Your task to perform on an android device: Search for "usb-b" on bestbuy.com, select the first entry, add it to the cart, then select checkout. Image 0: 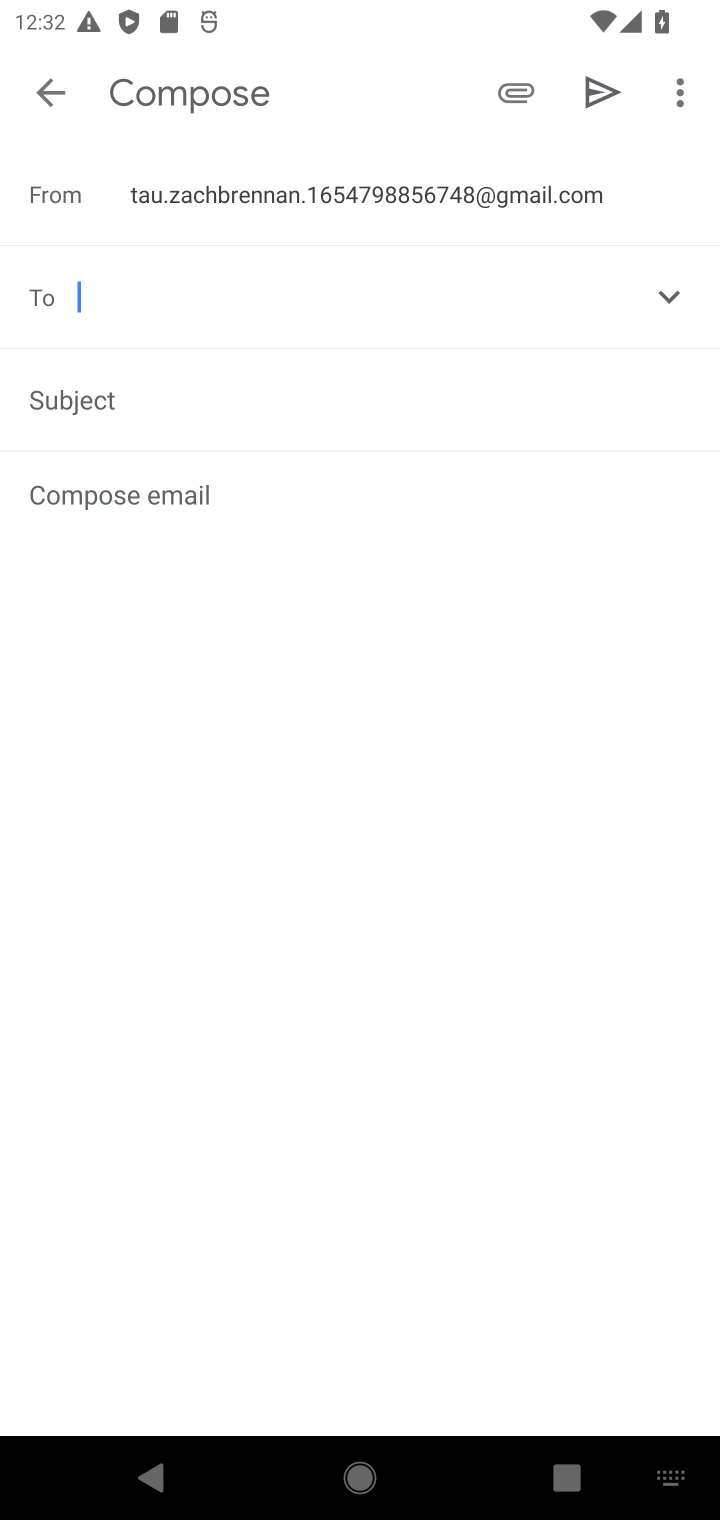
Step 0: press home button
Your task to perform on an android device: Search for "usb-b" on bestbuy.com, select the first entry, add it to the cart, then select checkout. Image 1: 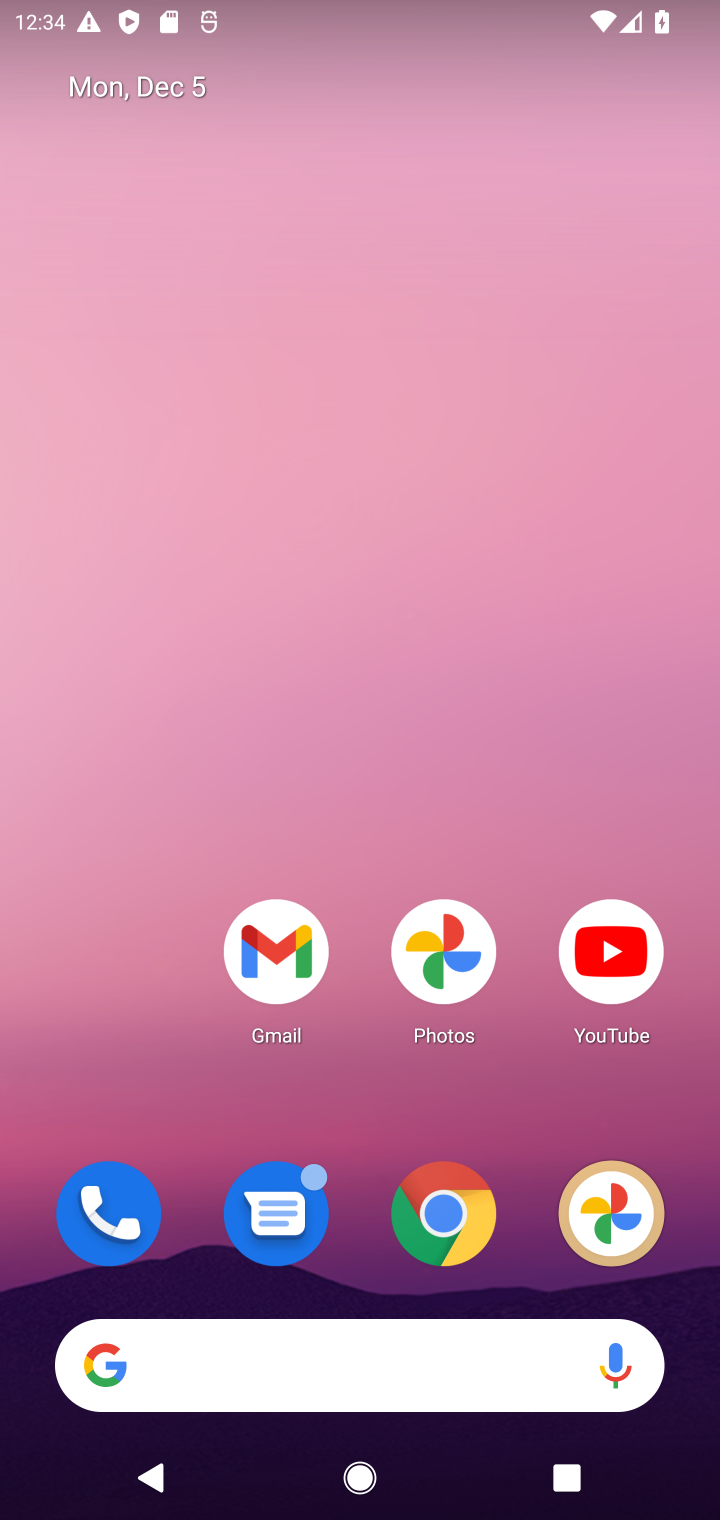
Step 1: click (447, 1225)
Your task to perform on an android device: Search for "usb-b" on bestbuy.com, select the first entry, add it to the cart, then select checkout. Image 2: 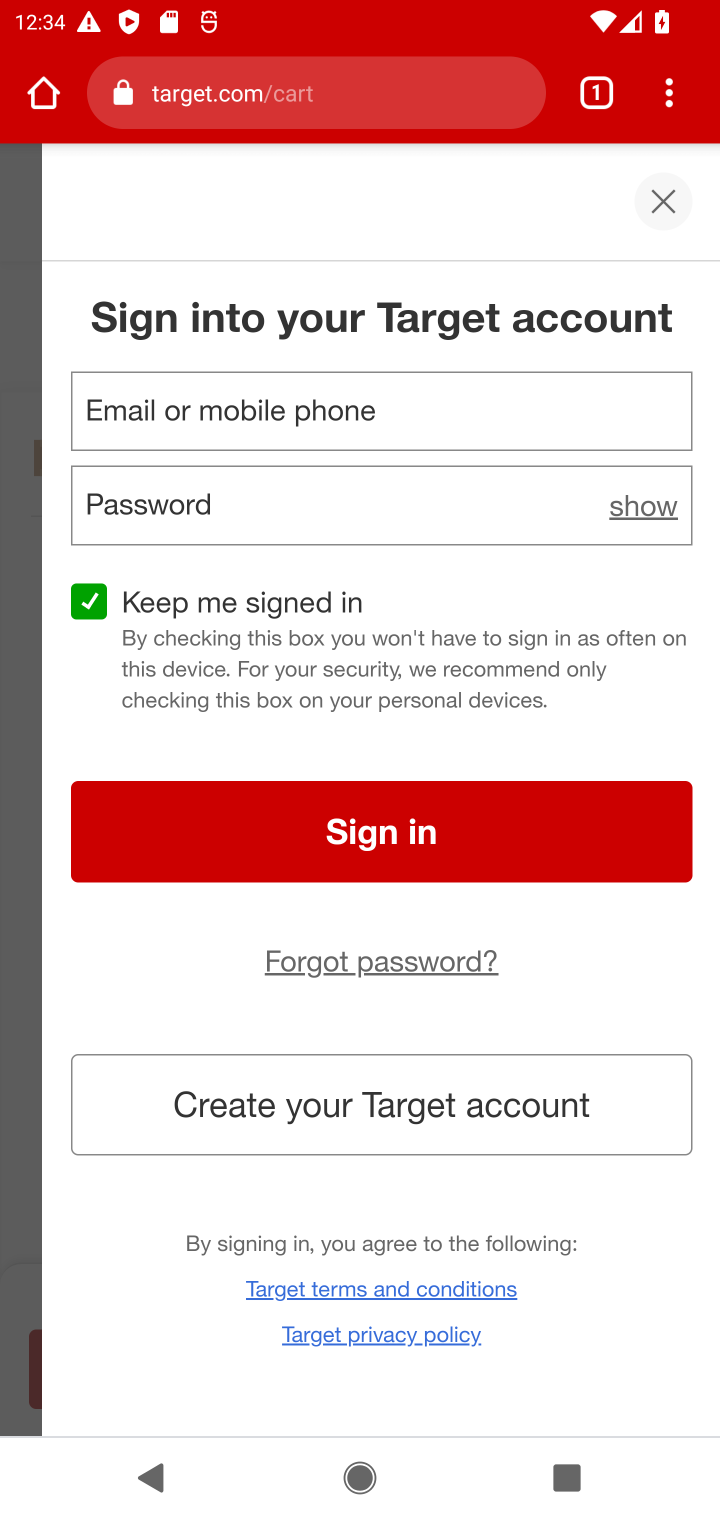
Step 2: click (230, 104)
Your task to perform on an android device: Search for "usb-b" on bestbuy.com, select the first entry, add it to the cart, then select checkout. Image 3: 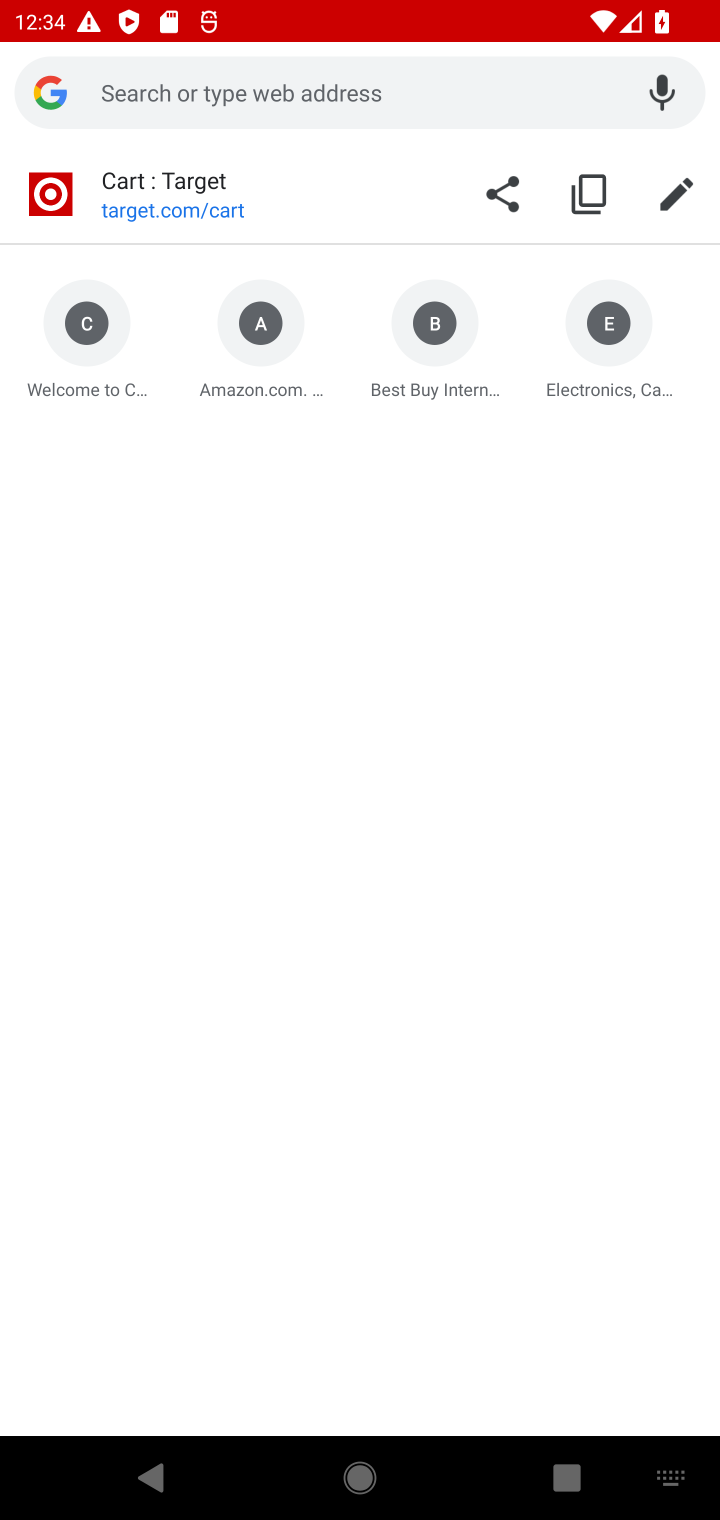
Step 3: type "bestbuy.com"
Your task to perform on an android device: Search for "usb-b" on bestbuy.com, select the first entry, add it to the cart, then select checkout. Image 4: 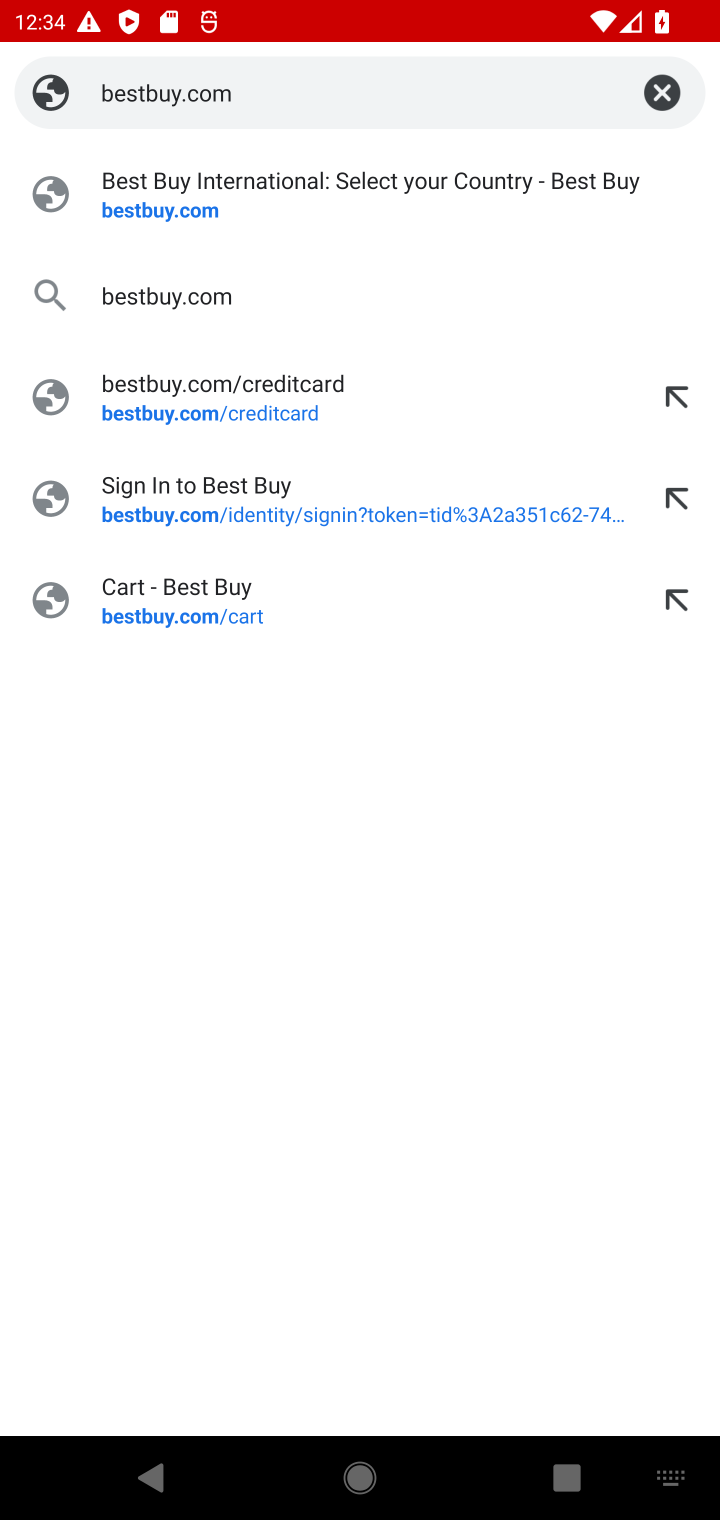
Step 4: click (178, 201)
Your task to perform on an android device: Search for "usb-b" on bestbuy.com, select the first entry, add it to the cart, then select checkout. Image 5: 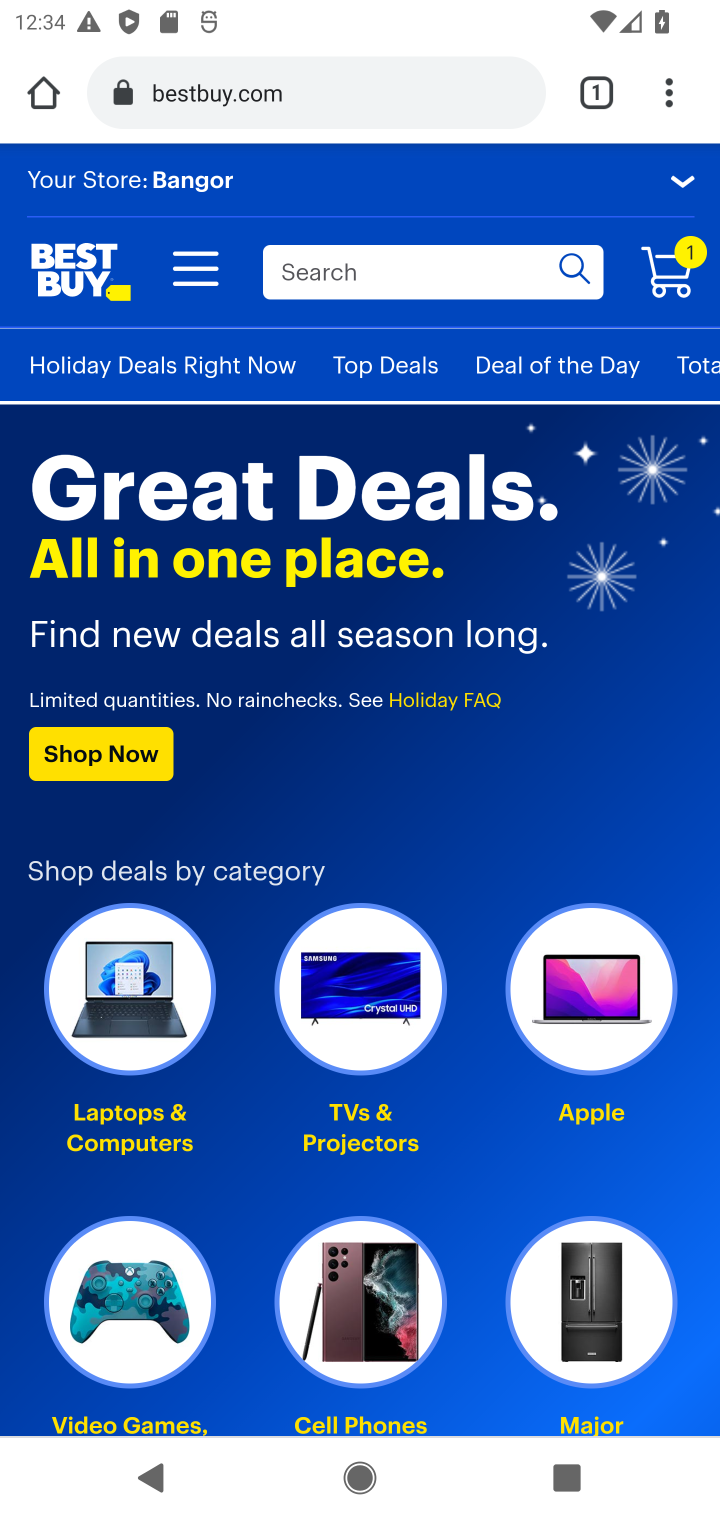
Step 5: click (352, 285)
Your task to perform on an android device: Search for "usb-b" on bestbuy.com, select the first entry, add it to the cart, then select checkout. Image 6: 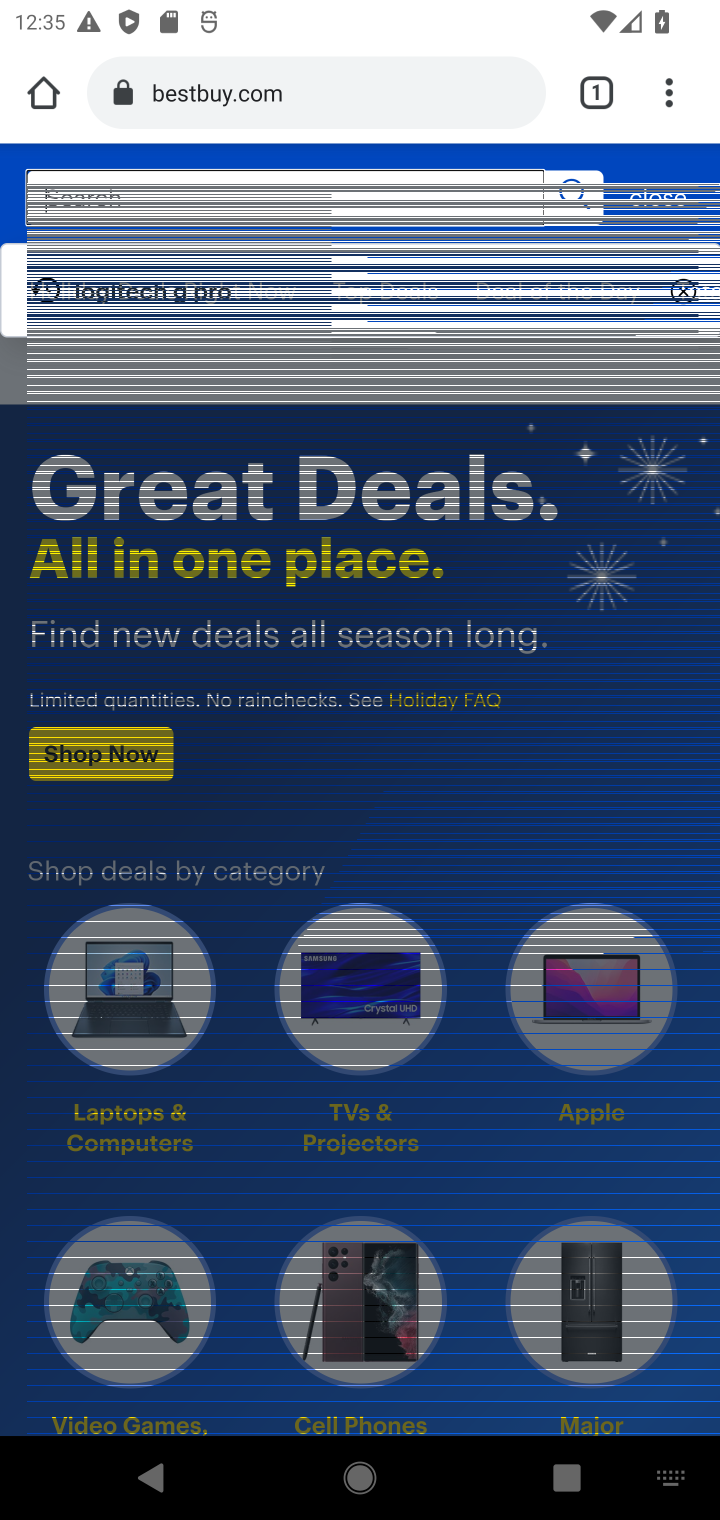
Step 6: type "usb-b"
Your task to perform on an android device: Search for "usb-b" on bestbuy.com, select the first entry, add it to the cart, then select checkout. Image 7: 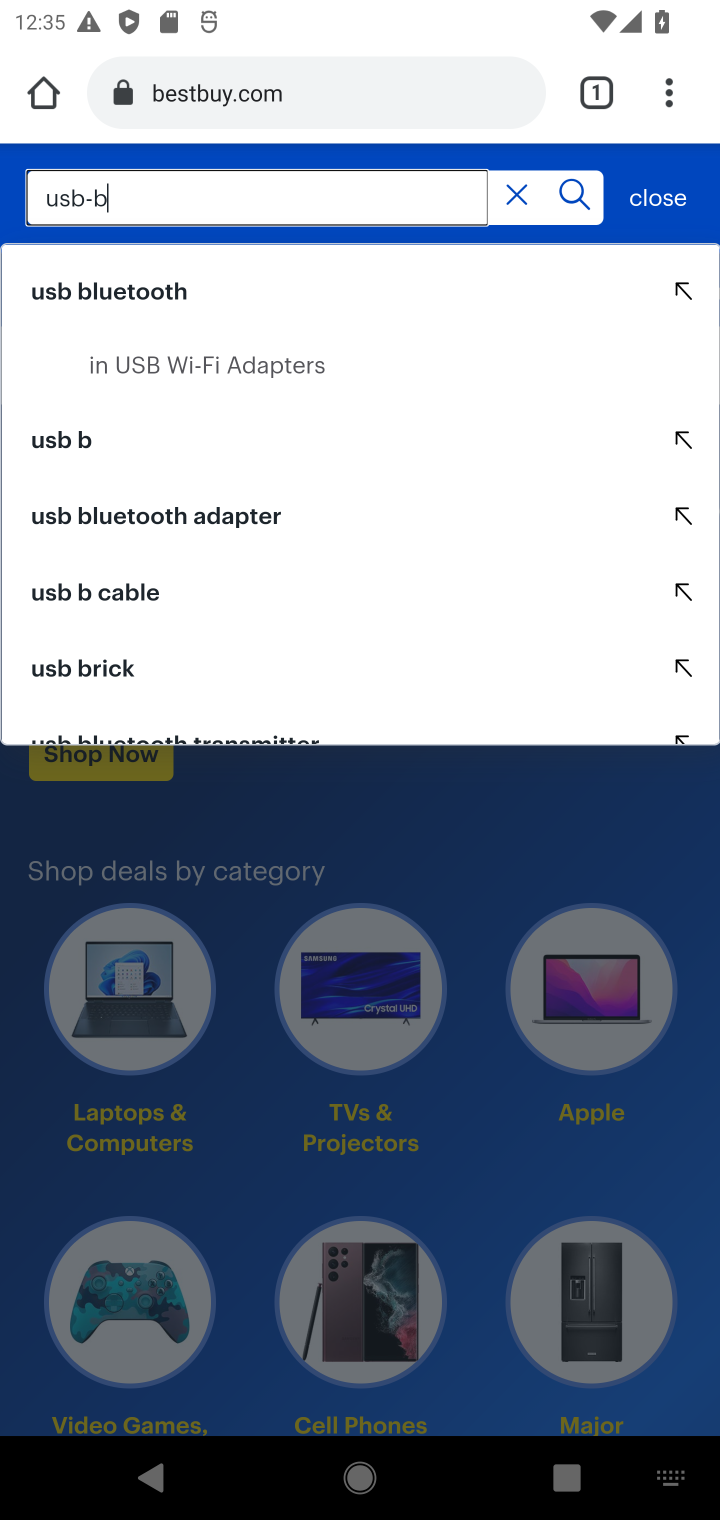
Step 7: click (69, 444)
Your task to perform on an android device: Search for "usb-b" on bestbuy.com, select the first entry, add it to the cart, then select checkout. Image 8: 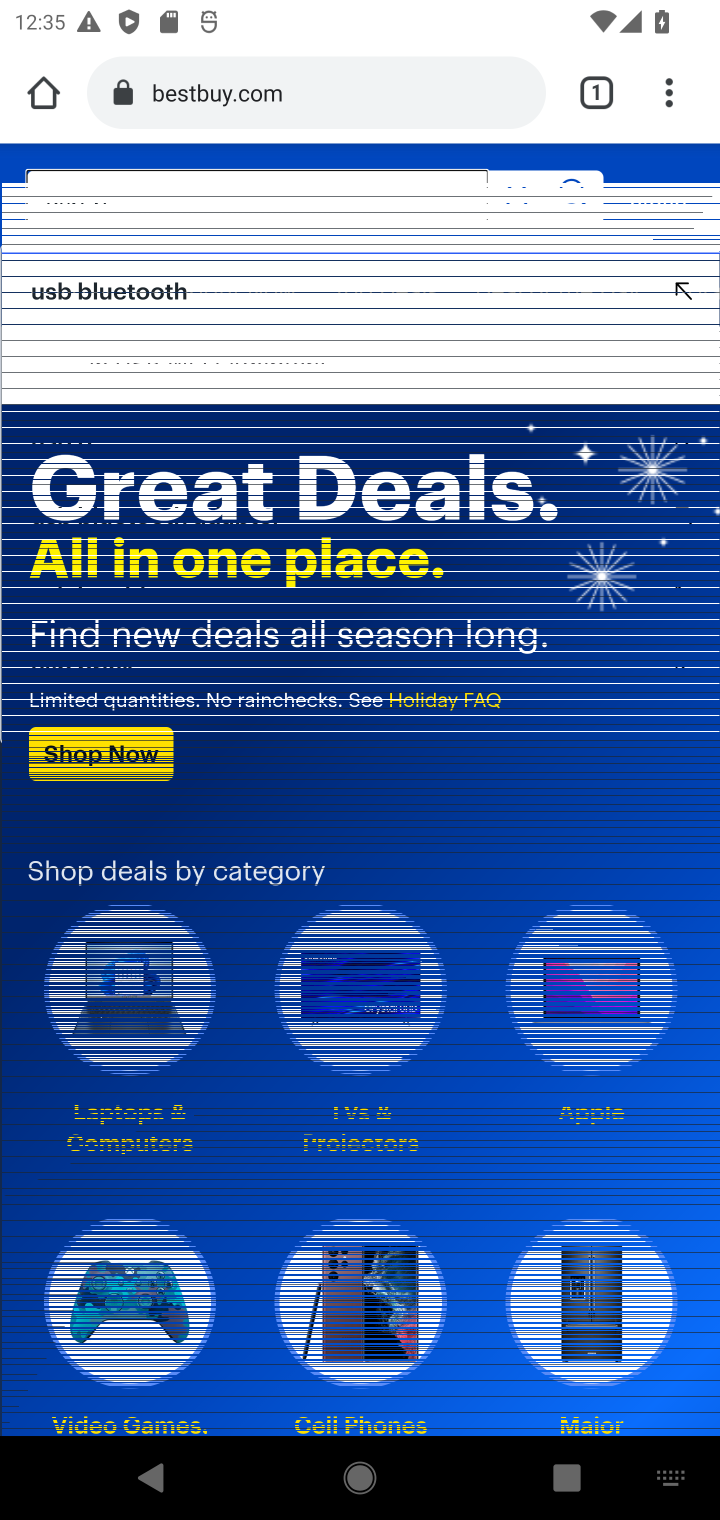
Step 8: click (67, 445)
Your task to perform on an android device: Search for "usb-b" on bestbuy.com, select the first entry, add it to the cart, then select checkout. Image 9: 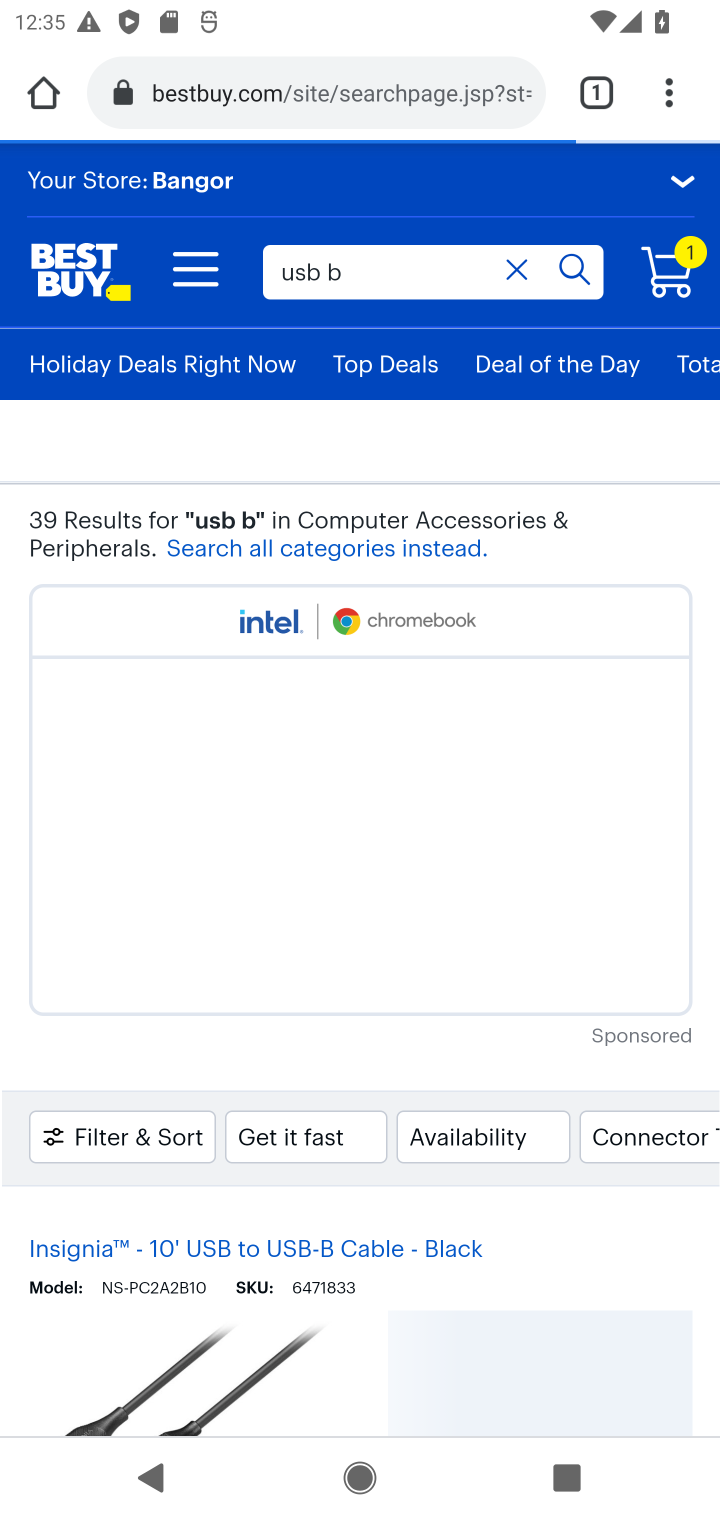
Step 9: drag from (260, 981) to (274, 357)
Your task to perform on an android device: Search for "usb-b" on bestbuy.com, select the first entry, add it to the cart, then select checkout. Image 10: 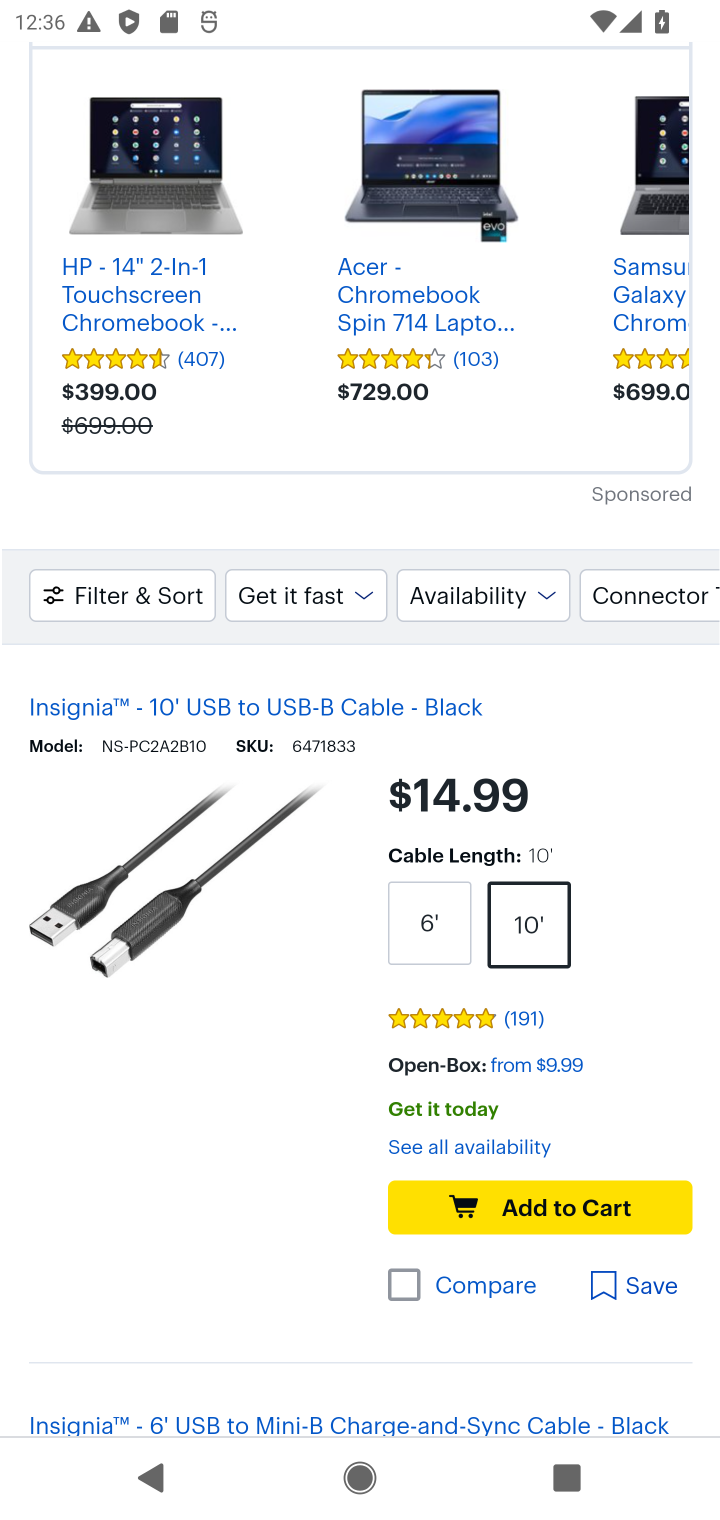
Step 10: click (521, 1191)
Your task to perform on an android device: Search for "usb-b" on bestbuy.com, select the first entry, add it to the cart, then select checkout. Image 11: 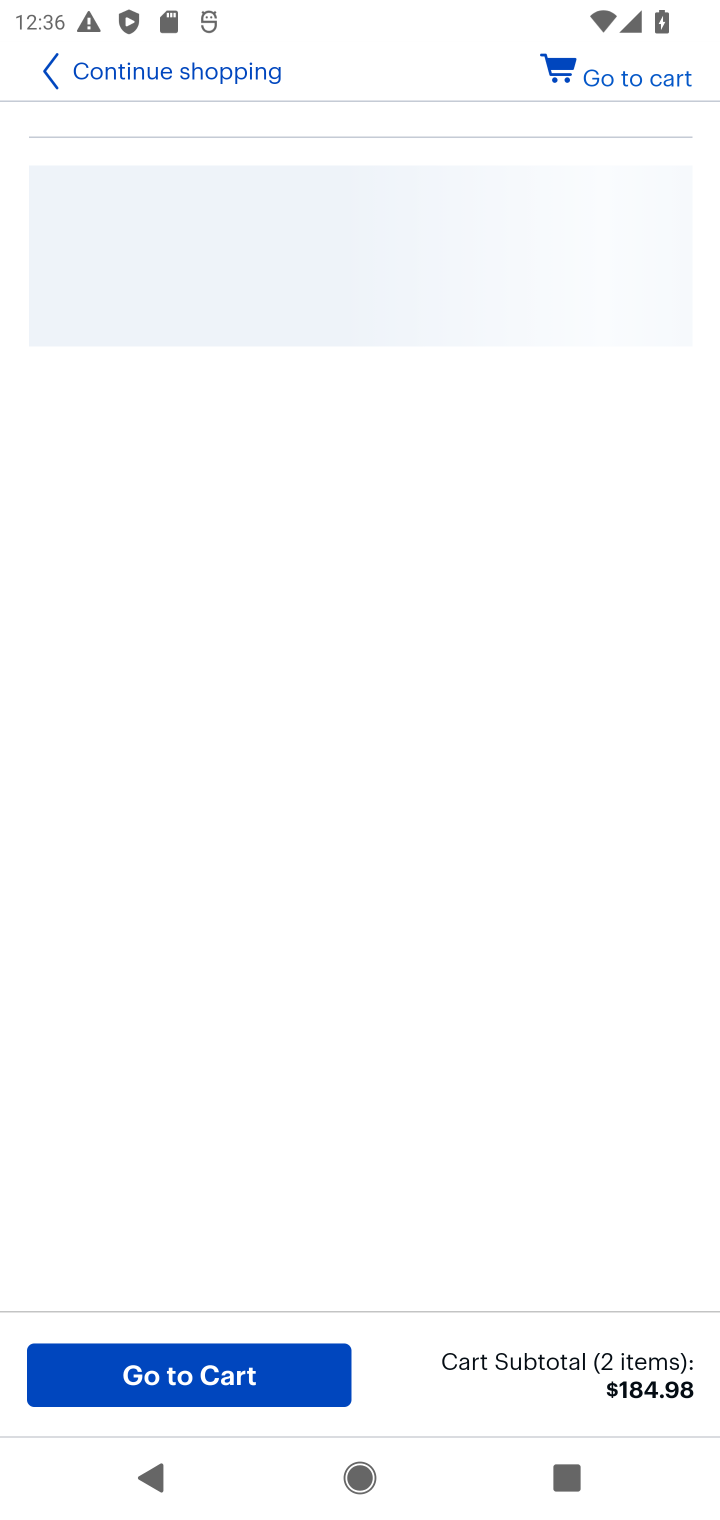
Step 11: click (623, 75)
Your task to perform on an android device: Search for "usb-b" on bestbuy.com, select the first entry, add it to the cart, then select checkout. Image 12: 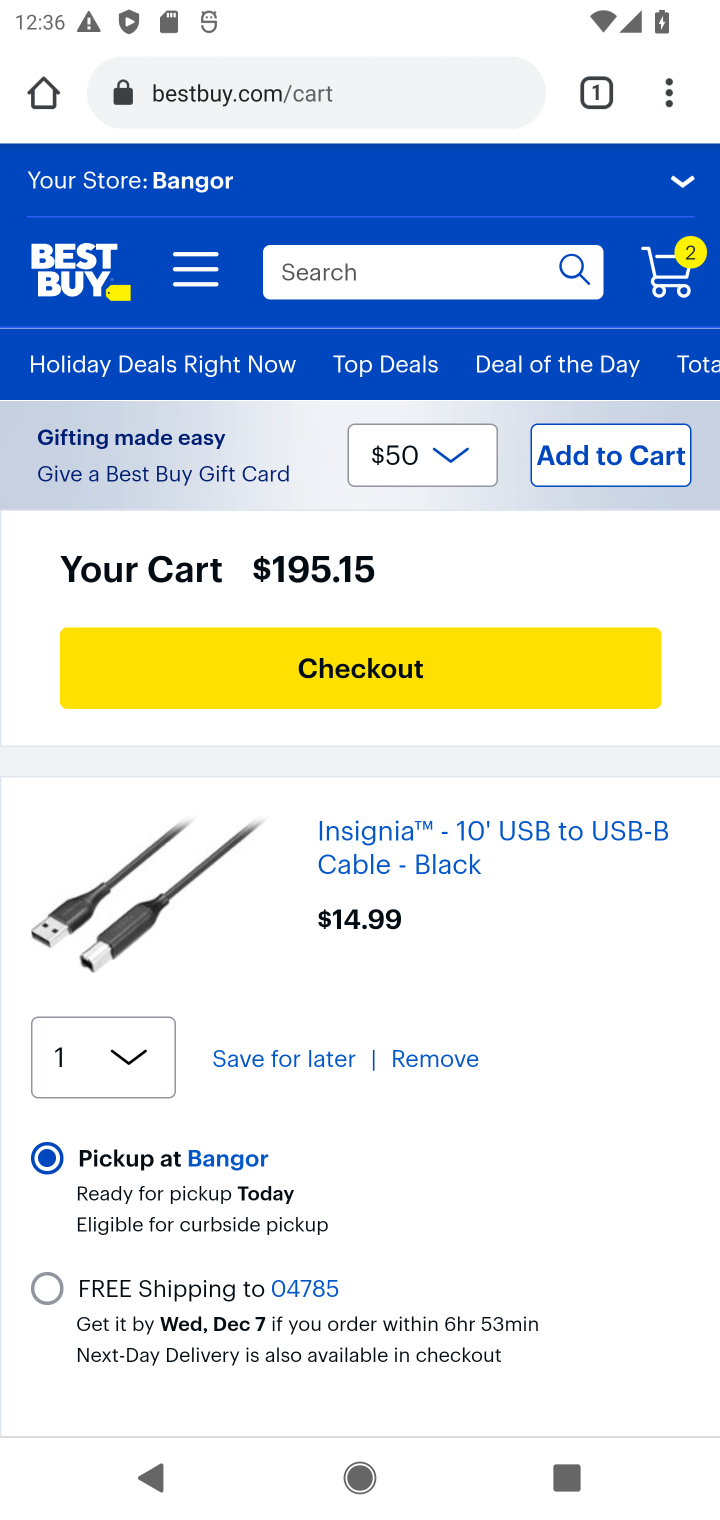
Step 12: click (295, 684)
Your task to perform on an android device: Search for "usb-b" on bestbuy.com, select the first entry, add it to the cart, then select checkout. Image 13: 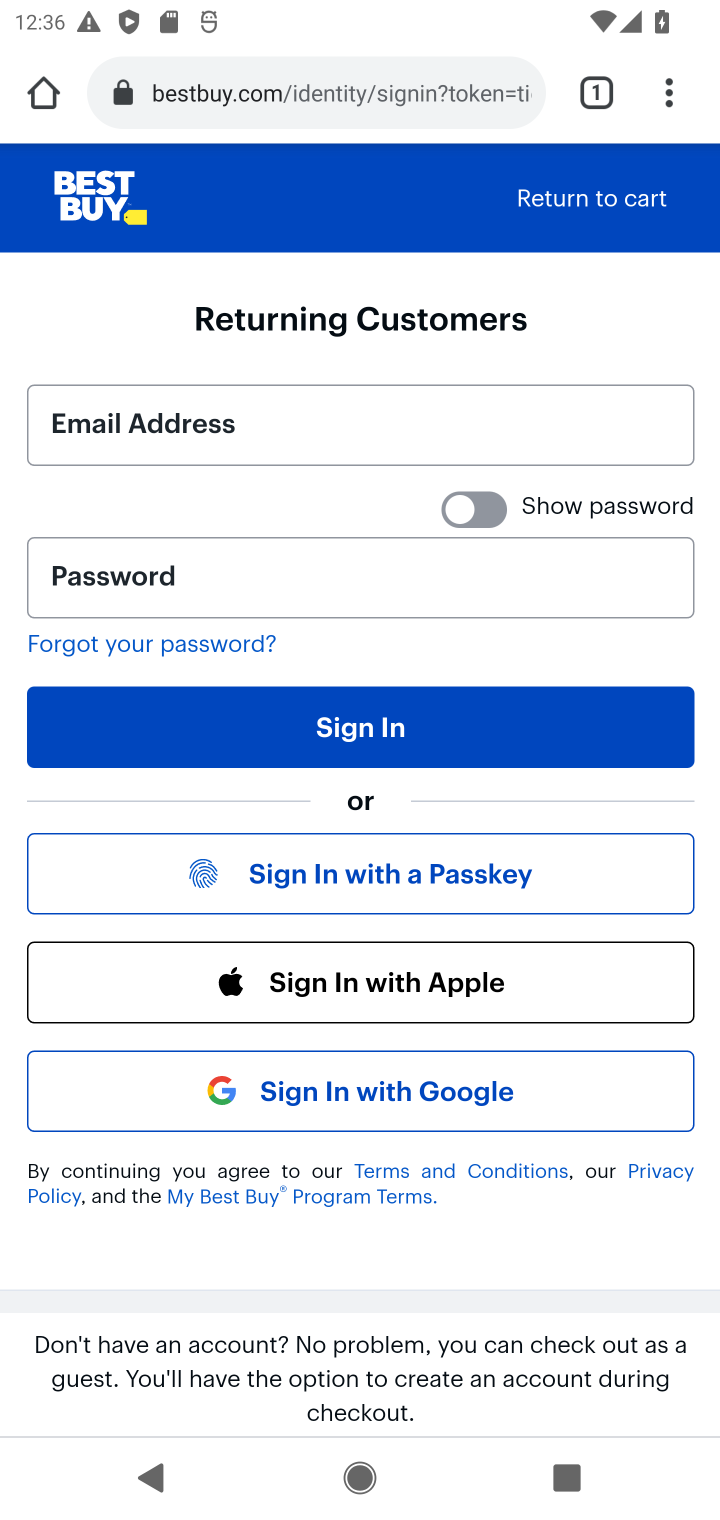
Step 13: task complete